Your task to perform on an android device: Open settings Image 0: 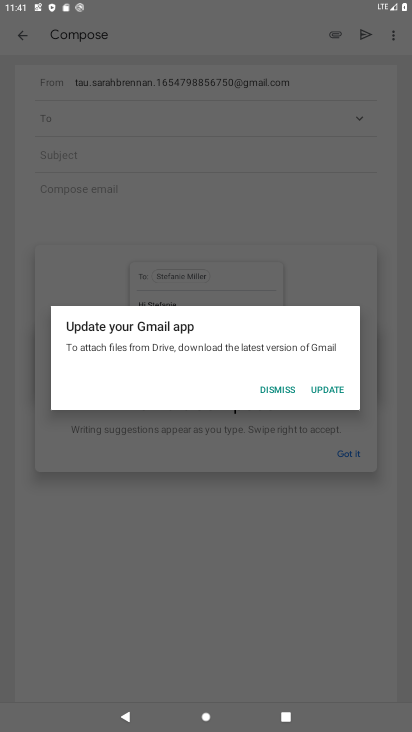
Step 0: press home button
Your task to perform on an android device: Open settings Image 1: 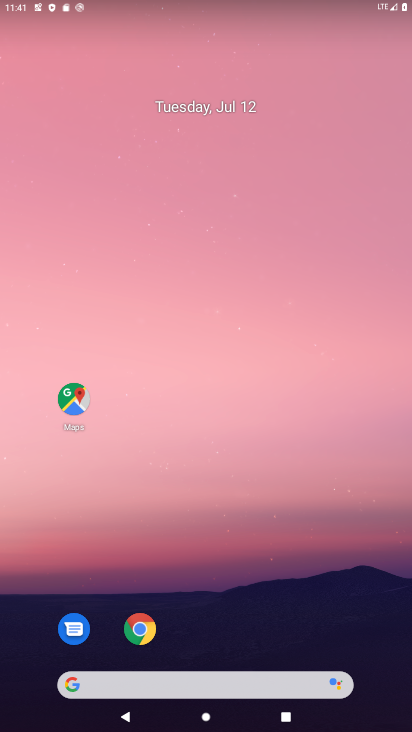
Step 1: drag from (209, 643) to (231, 120)
Your task to perform on an android device: Open settings Image 2: 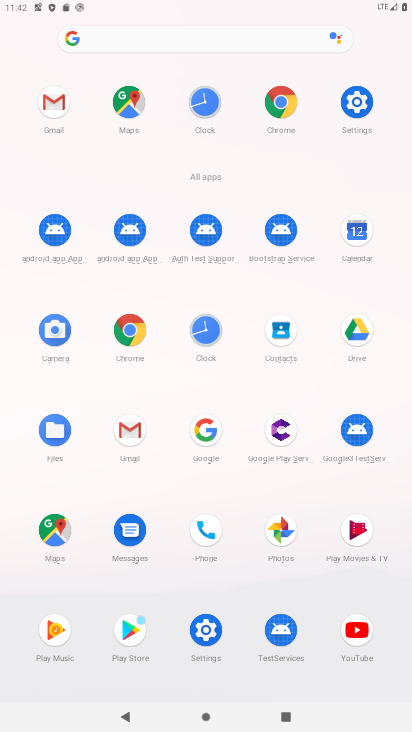
Step 2: click (355, 97)
Your task to perform on an android device: Open settings Image 3: 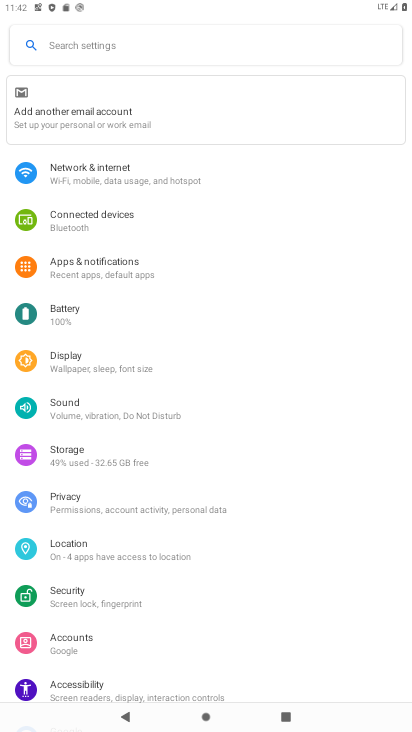
Step 3: task complete